Your task to perform on an android device: Toggle the flashlight Image 0: 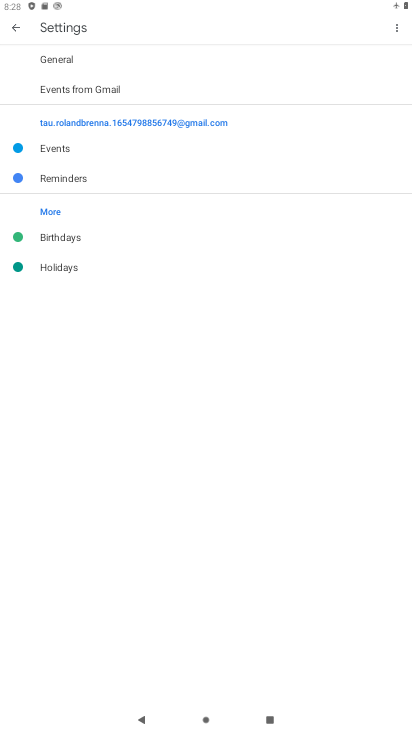
Step 0: drag from (156, 468) to (156, 288)
Your task to perform on an android device: Toggle the flashlight Image 1: 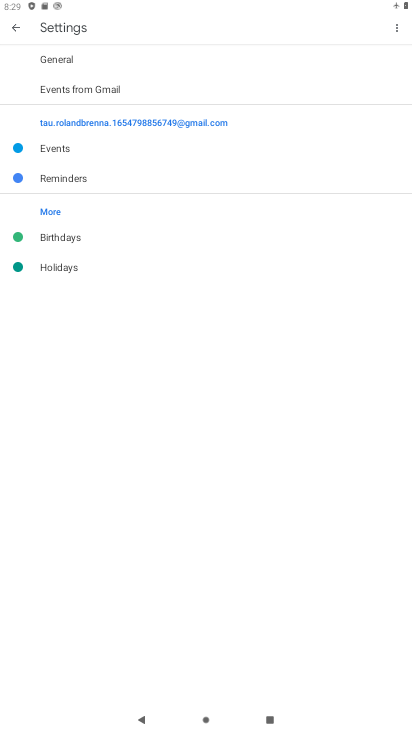
Step 1: drag from (168, 573) to (233, 296)
Your task to perform on an android device: Toggle the flashlight Image 2: 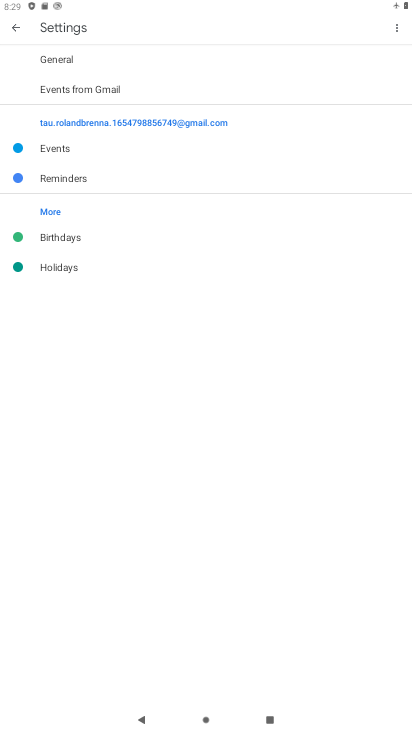
Step 2: press home button
Your task to perform on an android device: Toggle the flashlight Image 3: 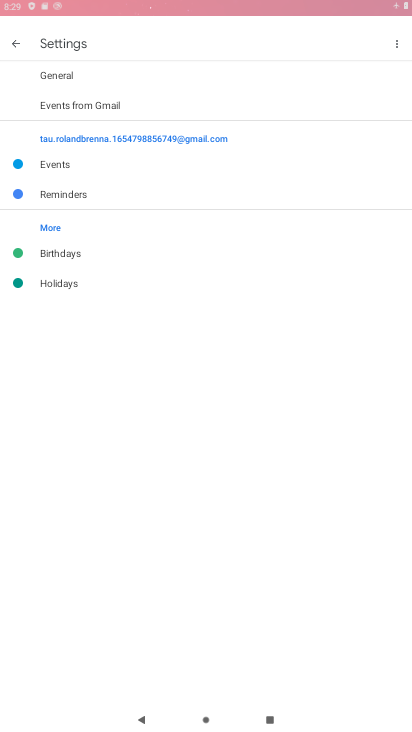
Step 3: drag from (217, 553) to (217, 125)
Your task to perform on an android device: Toggle the flashlight Image 4: 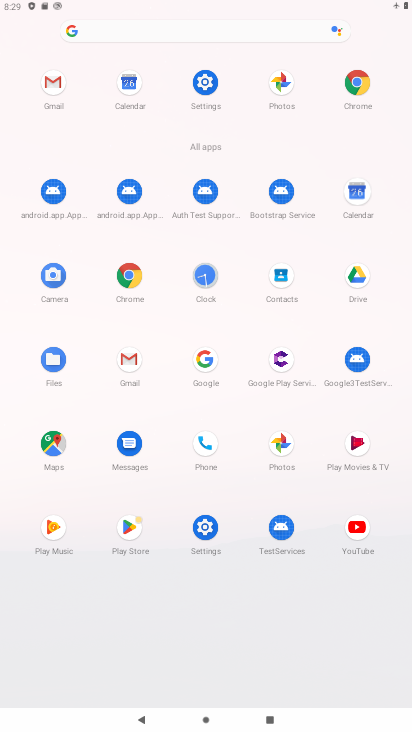
Step 4: click (127, 28)
Your task to perform on an android device: Toggle the flashlight Image 5: 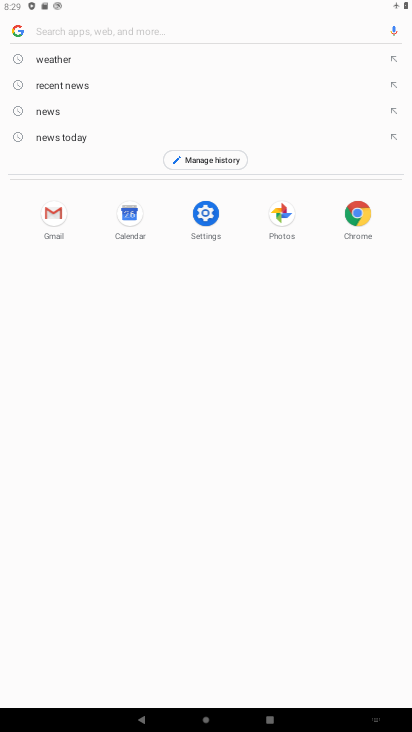
Step 5: press home button
Your task to perform on an android device: Toggle the flashlight Image 6: 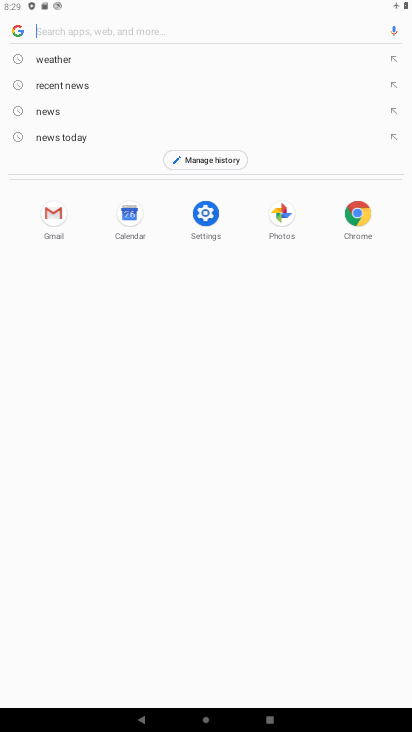
Step 6: drag from (185, 604) to (204, 112)
Your task to perform on an android device: Toggle the flashlight Image 7: 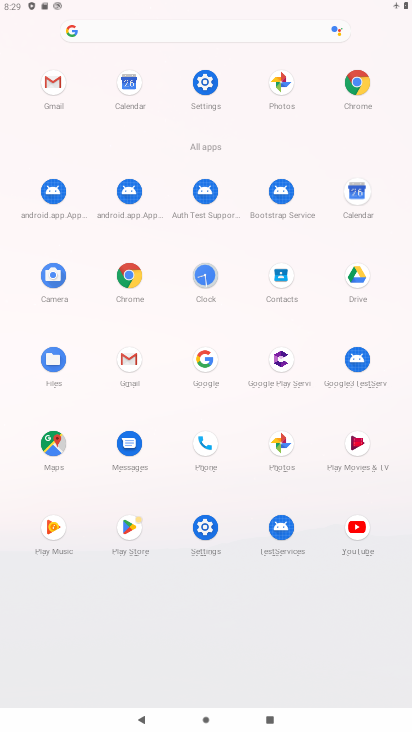
Step 7: click (211, 79)
Your task to perform on an android device: Toggle the flashlight Image 8: 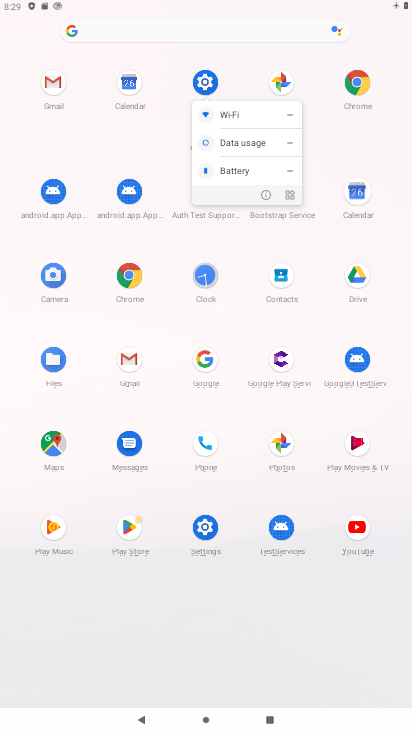
Step 8: click (261, 194)
Your task to perform on an android device: Toggle the flashlight Image 9: 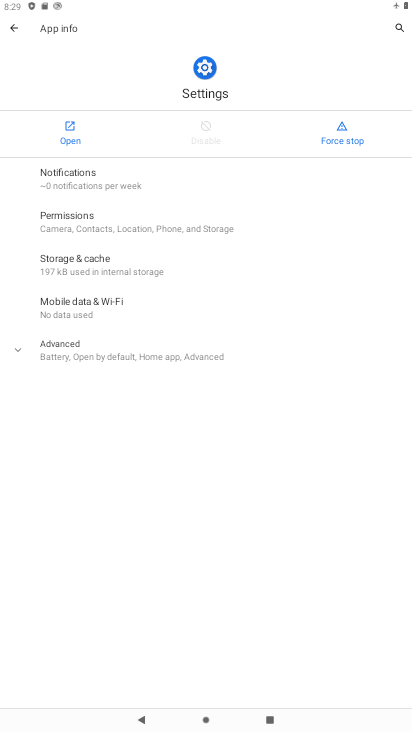
Step 9: click (74, 126)
Your task to perform on an android device: Toggle the flashlight Image 10: 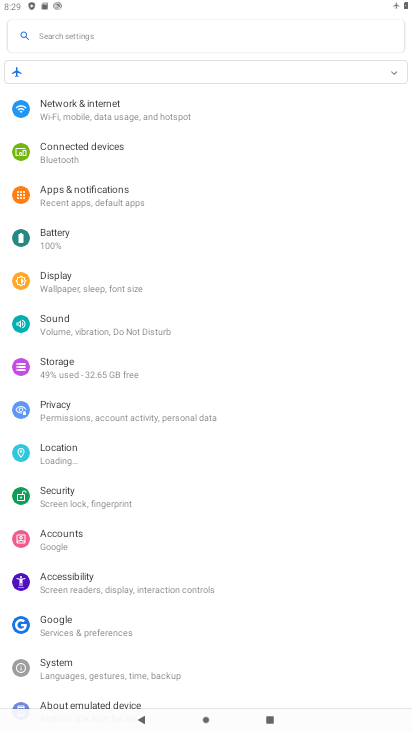
Step 10: click (105, 25)
Your task to perform on an android device: Toggle the flashlight Image 11: 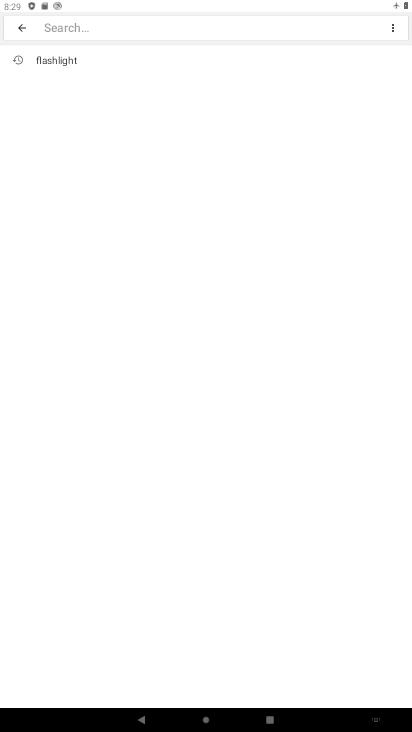
Step 11: type "flashlight"
Your task to perform on an android device: Toggle the flashlight Image 12: 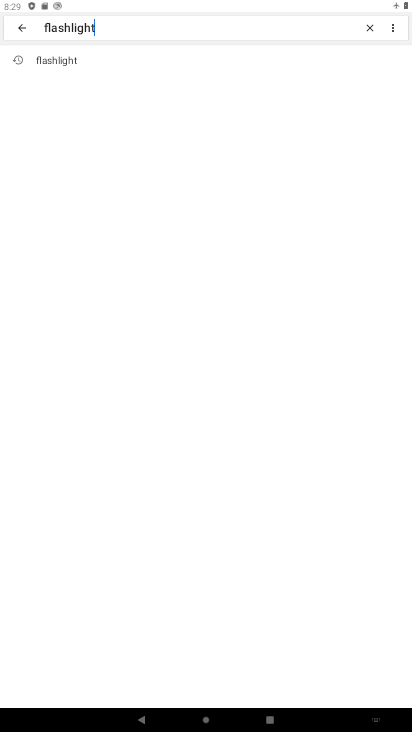
Step 12: type ""
Your task to perform on an android device: Toggle the flashlight Image 13: 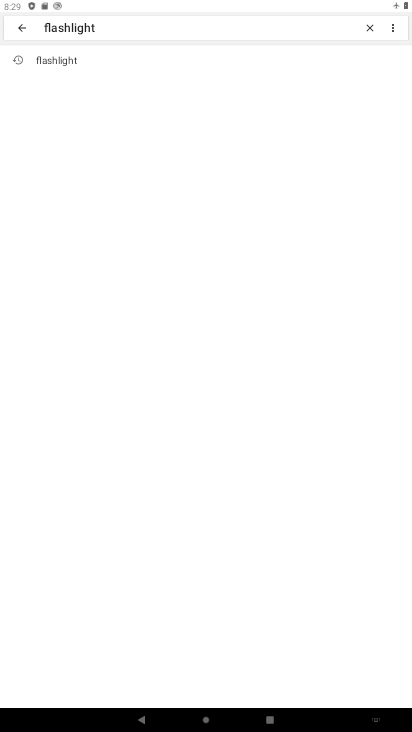
Step 13: click (40, 55)
Your task to perform on an android device: Toggle the flashlight Image 14: 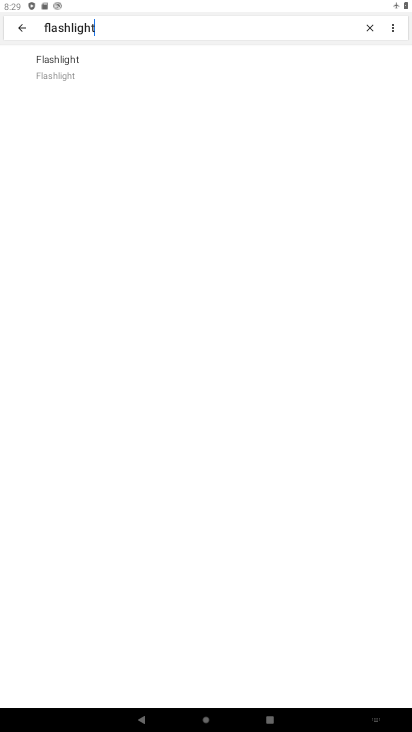
Step 14: click (76, 69)
Your task to perform on an android device: Toggle the flashlight Image 15: 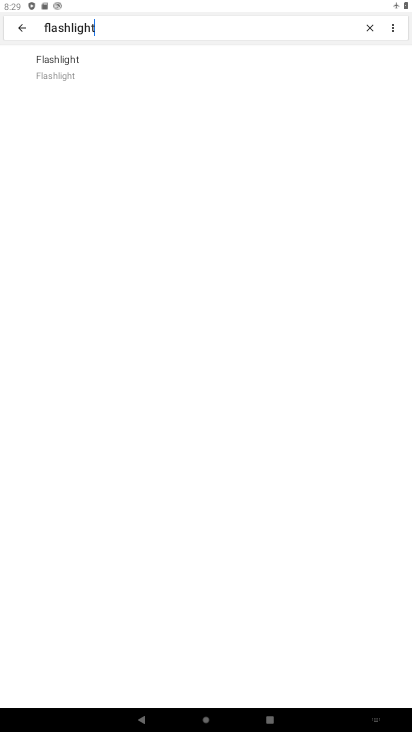
Step 15: task complete